Your task to perform on an android device: change the clock display to analog Image 0: 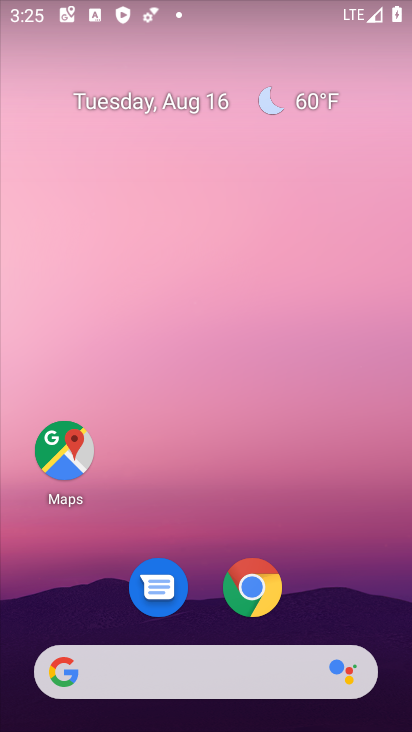
Step 0: drag from (173, 628) to (256, 77)
Your task to perform on an android device: change the clock display to analog Image 1: 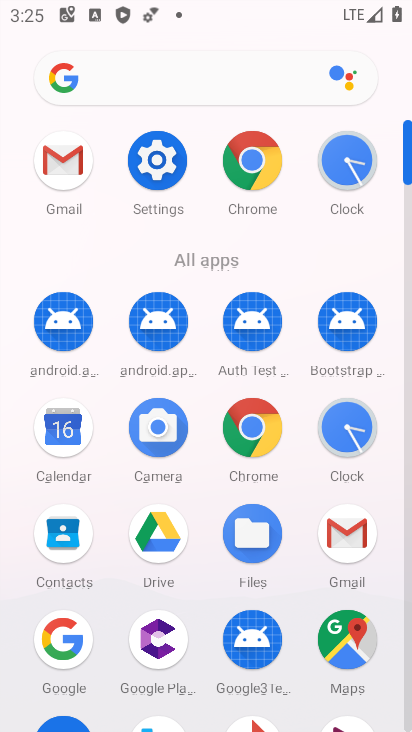
Step 1: click (332, 168)
Your task to perform on an android device: change the clock display to analog Image 2: 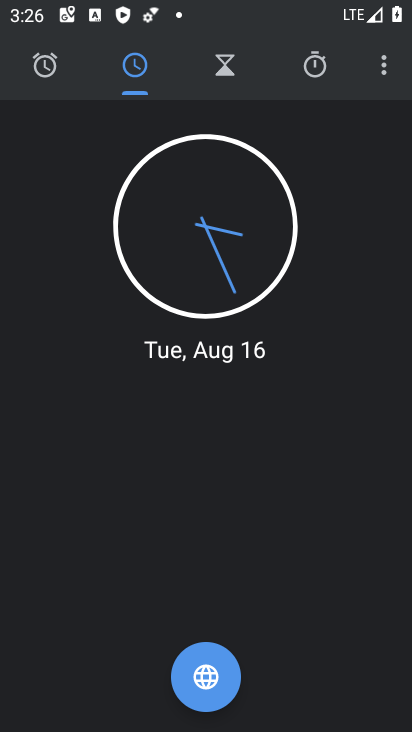
Step 2: click (379, 67)
Your task to perform on an android device: change the clock display to analog Image 3: 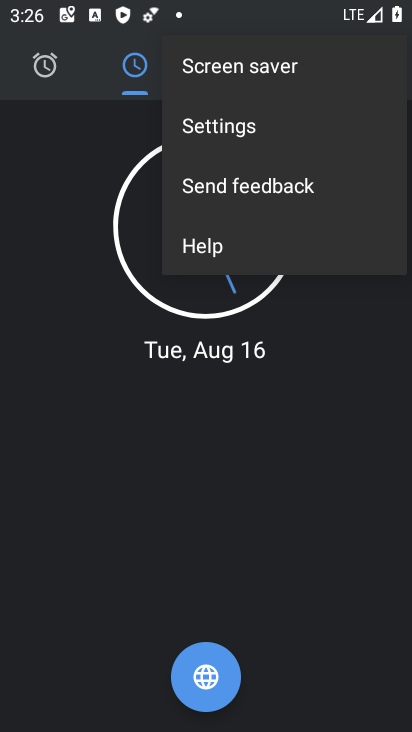
Step 3: click (208, 131)
Your task to perform on an android device: change the clock display to analog Image 4: 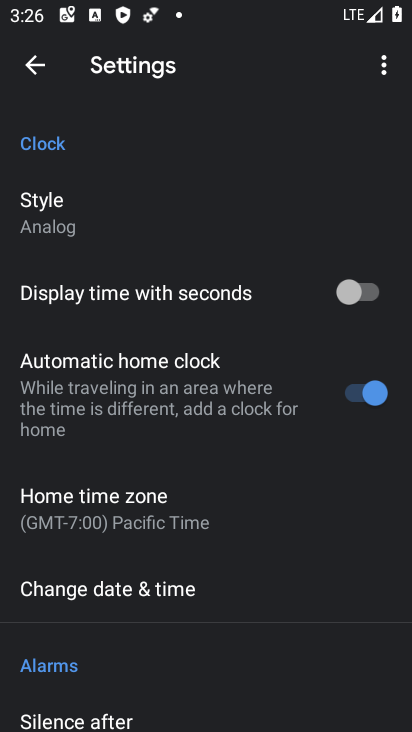
Step 4: task complete